Your task to perform on an android device: Go to notification settings Image 0: 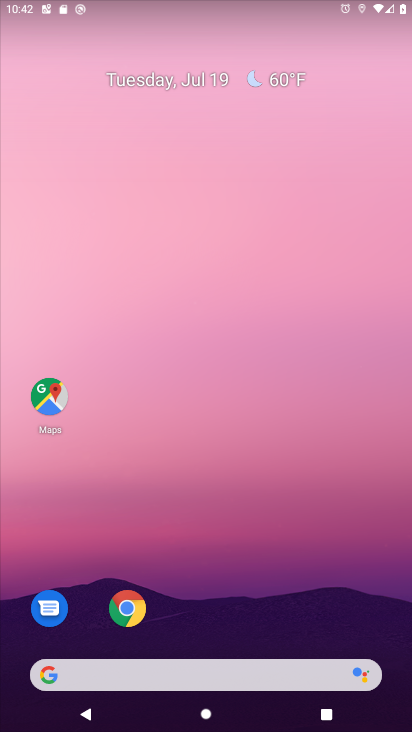
Step 0: drag from (212, 652) to (132, 260)
Your task to perform on an android device: Go to notification settings Image 1: 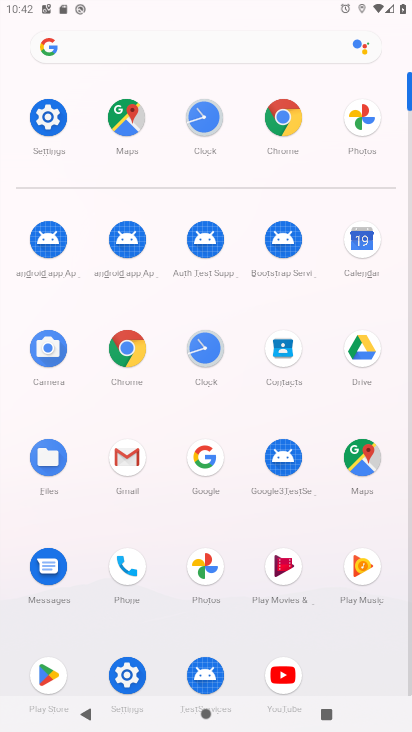
Step 1: click (34, 130)
Your task to perform on an android device: Go to notification settings Image 2: 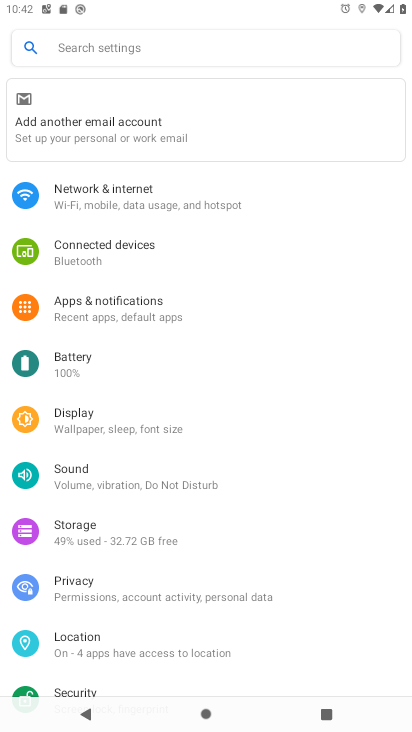
Step 2: click (84, 288)
Your task to perform on an android device: Go to notification settings Image 3: 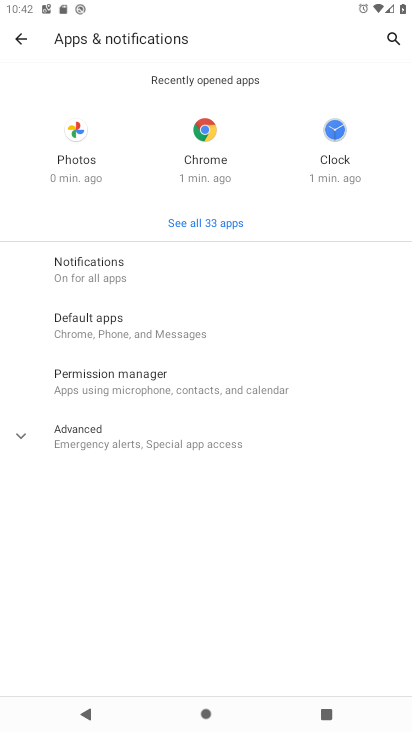
Step 3: click (63, 258)
Your task to perform on an android device: Go to notification settings Image 4: 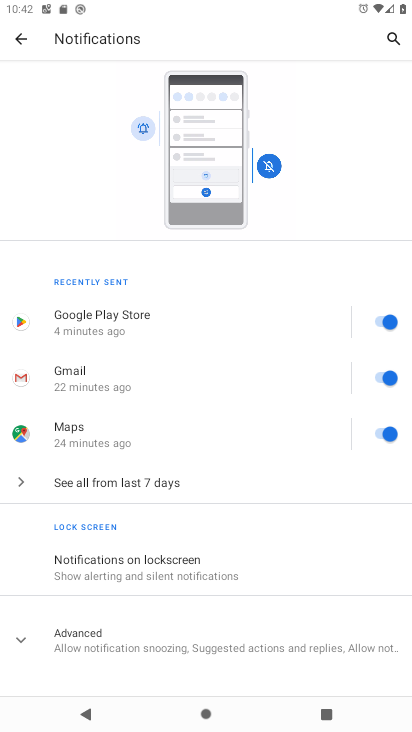
Step 4: task complete